Your task to perform on an android device: turn off notifications settings in the gmail app Image 0: 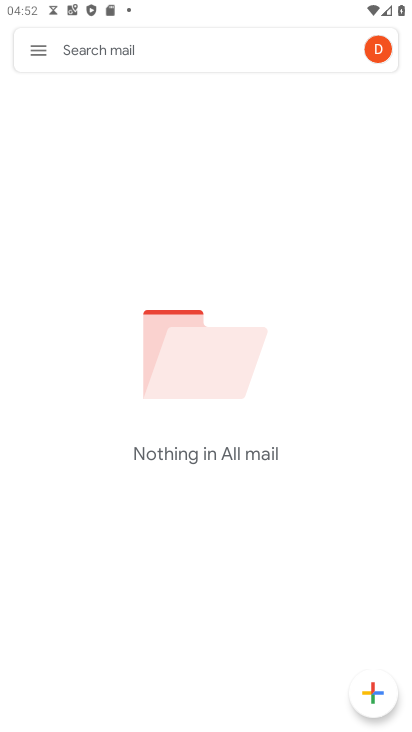
Step 0: press home button
Your task to perform on an android device: turn off notifications settings in the gmail app Image 1: 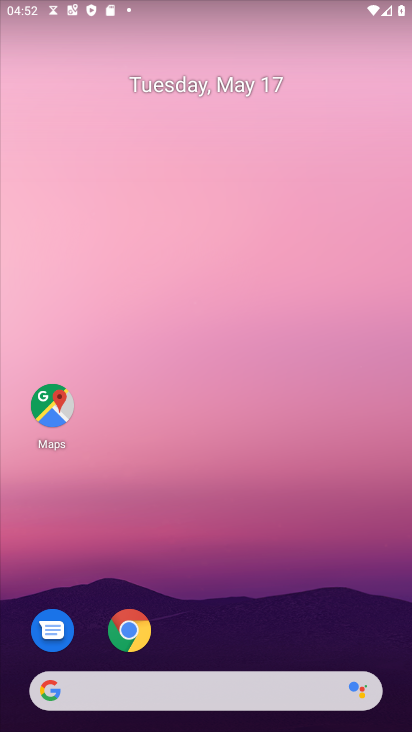
Step 1: drag from (264, 634) to (263, 113)
Your task to perform on an android device: turn off notifications settings in the gmail app Image 2: 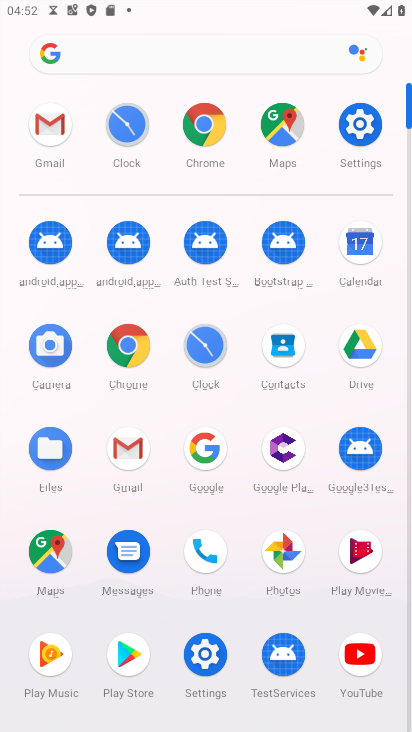
Step 2: click (54, 127)
Your task to perform on an android device: turn off notifications settings in the gmail app Image 3: 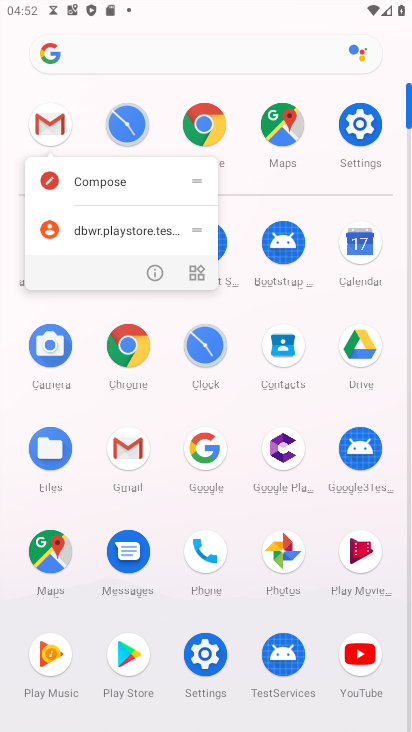
Step 3: click (156, 273)
Your task to perform on an android device: turn off notifications settings in the gmail app Image 4: 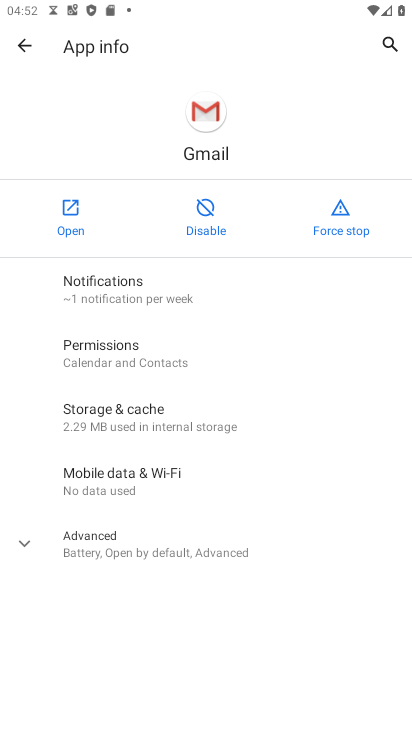
Step 4: click (124, 290)
Your task to perform on an android device: turn off notifications settings in the gmail app Image 5: 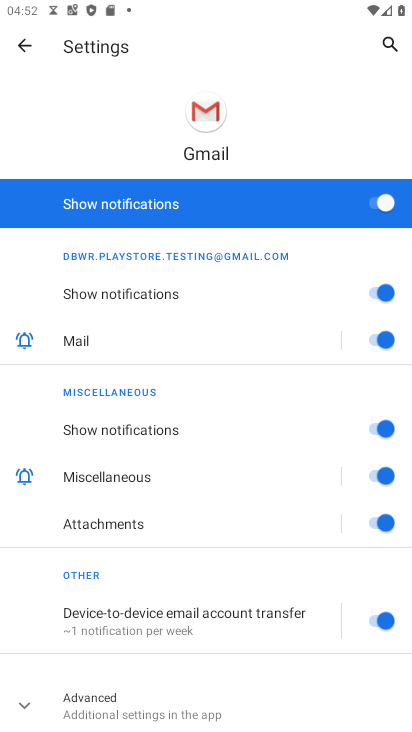
Step 5: click (381, 205)
Your task to perform on an android device: turn off notifications settings in the gmail app Image 6: 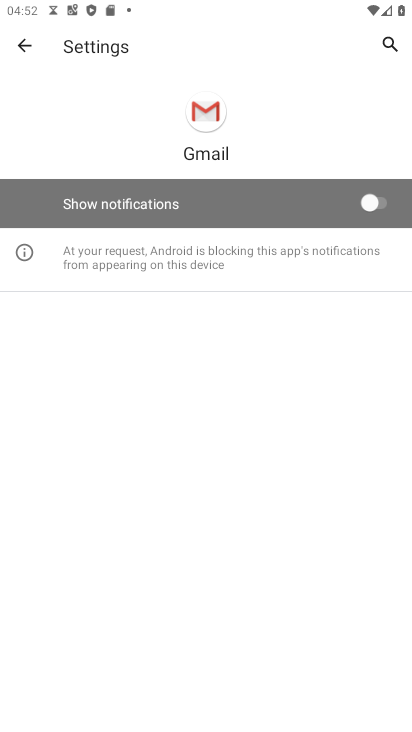
Step 6: task complete